Your task to perform on an android device: see sites visited before in the chrome app Image 0: 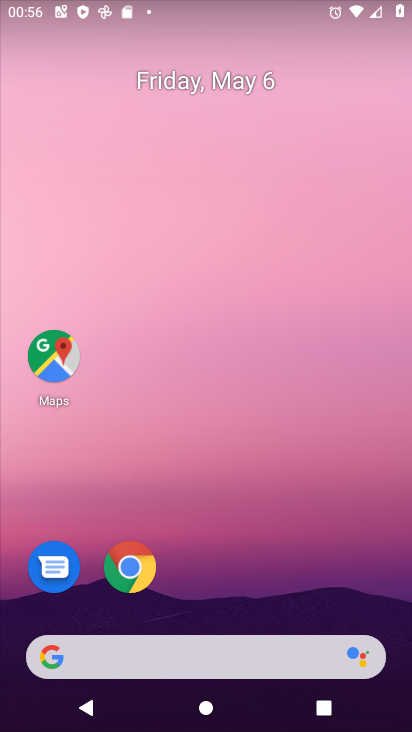
Step 0: click (117, 577)
Your task to perform on an android device: see sites visited before in the chrome app Image 1: 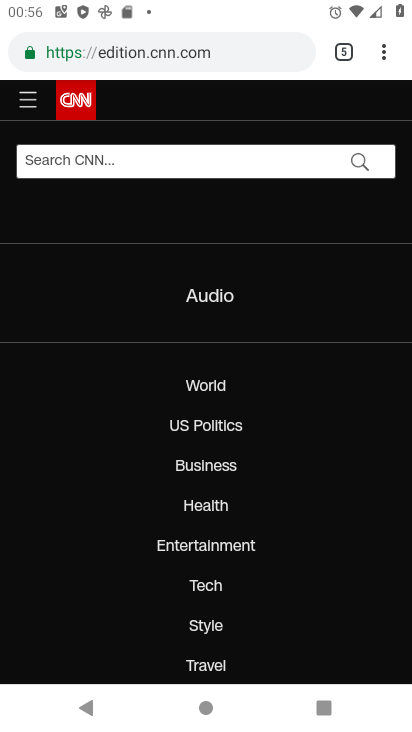
Step 1: press home button
Your task to perform on an android device: see sites visited before in the chrome app Image 2: 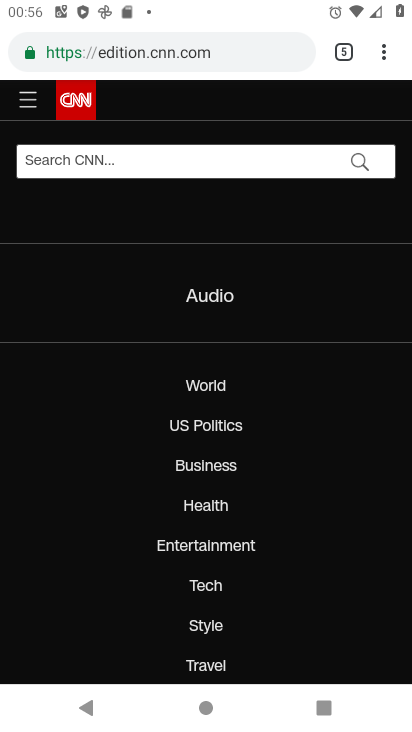
Step 2: press home button
Your task to perform on an android device: see sites visited before in the chrome app Image 3: 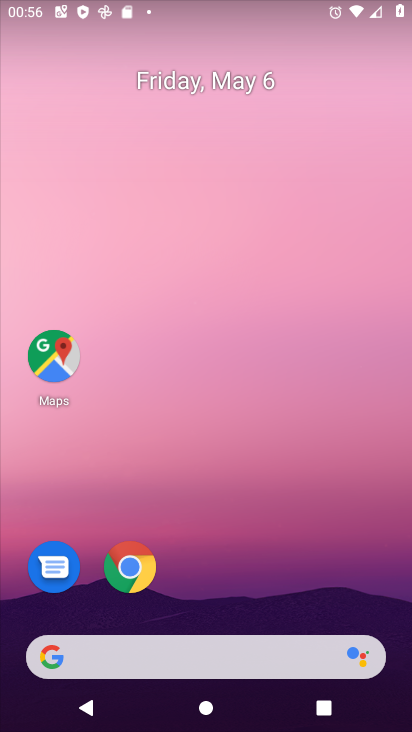
Step 3: click (122, 574)
Your task to perform on an android device: see sites visited before in the chrome app Image 4: 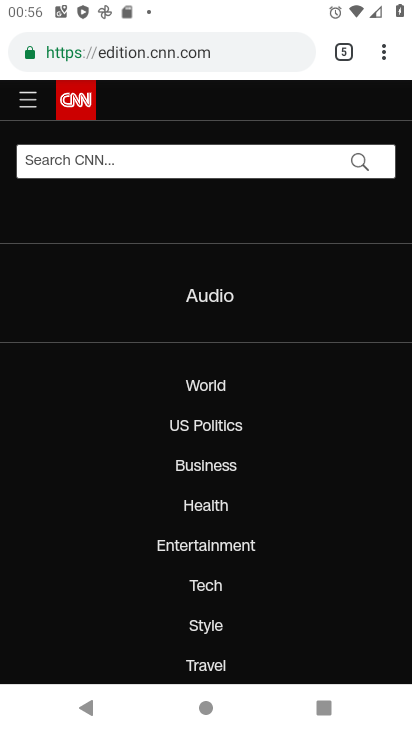
Step 4: task complete